Your task to perform on an android device: Go to network settings Image 0: 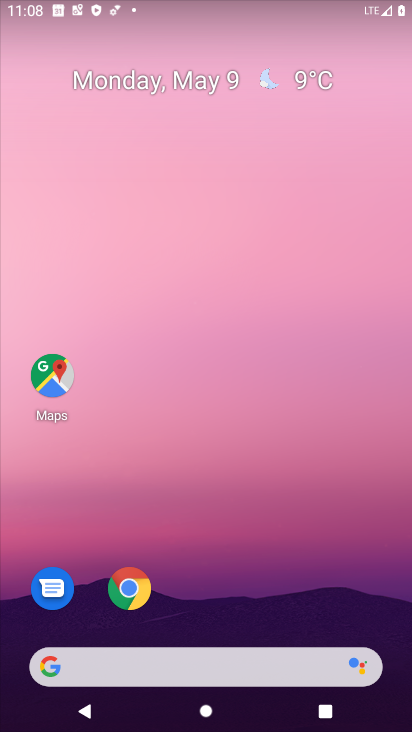
Step 0: press home button
Your task to perform on an android device: Go to network settings Image 1: 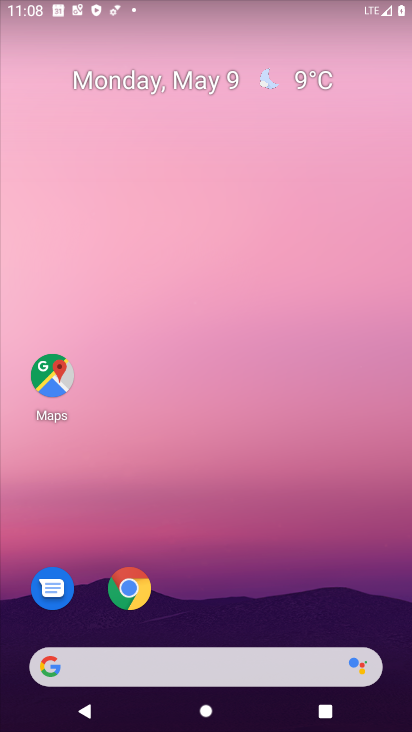
Step 1: drag from (206, 664) to (326, 81)
Your task to perform on an android device: Go to network settings Image 2: 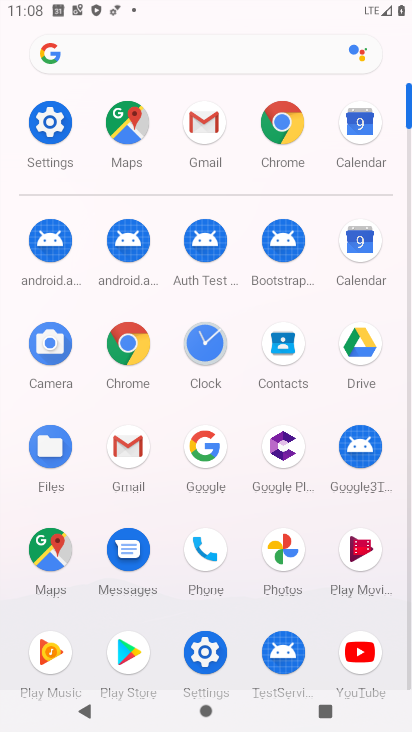
Step 2: click (60, 121)
Your task to perform on an android device: Go to network settings Image 3: 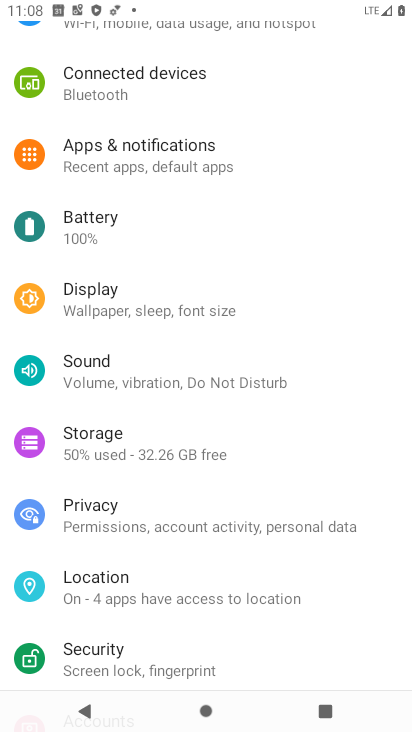
Step 3: drag from (264, 107) to (216, 455)
Your task to perform on an android device: Go to network settings Image 4: 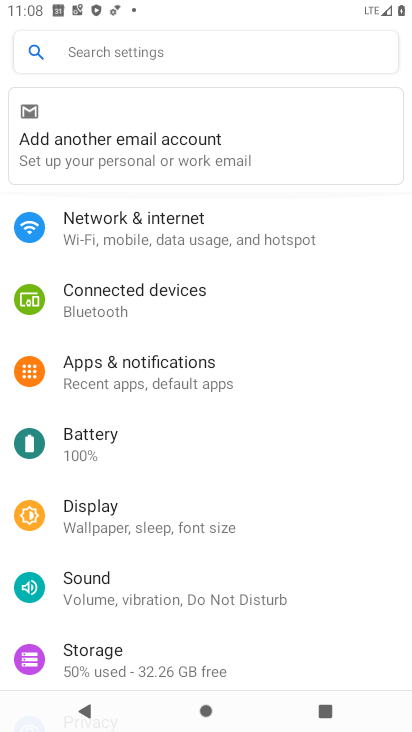
Step 4: click (181, 226)
Your task to perform on an android device: Go to network settings Image 5: 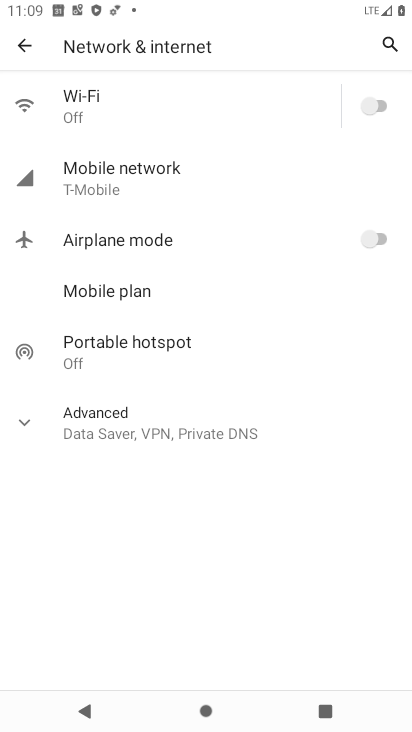
Step 5: task complete